Your task to perform on an android device: Open settings on Google Maps Image 0: 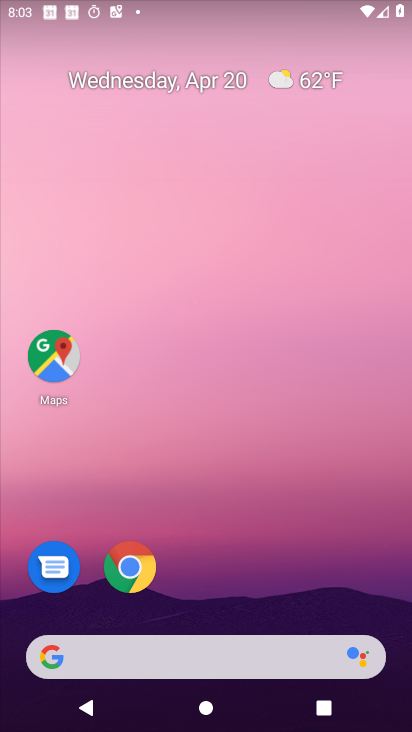
Step 0: click (231, 292)
Your task to perform on an android device: Open settings on Google Maps Image 1: 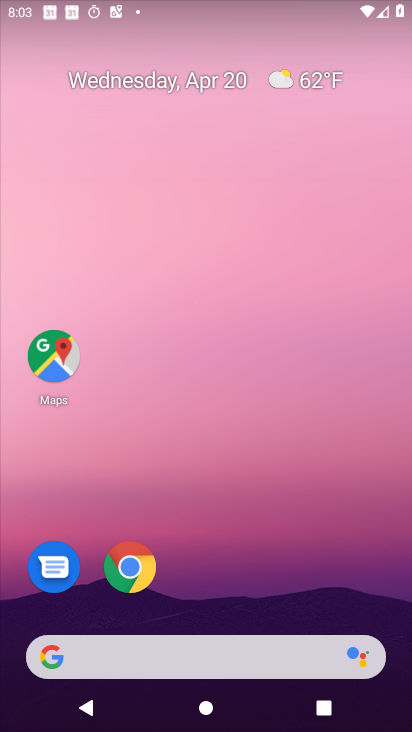
Step 1: click (59, 363)
Your task to perform on an android device: Open settings on Google Maps Image 2: 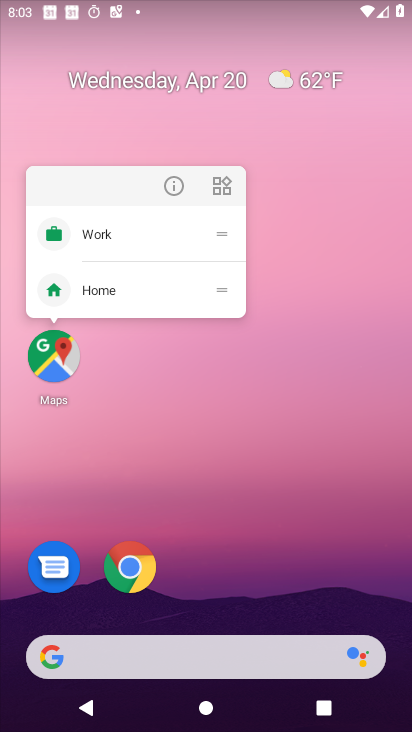
Step 2: click (59, 363)
Your task to perform on an android device: Open settings on Google Maps Image 3: 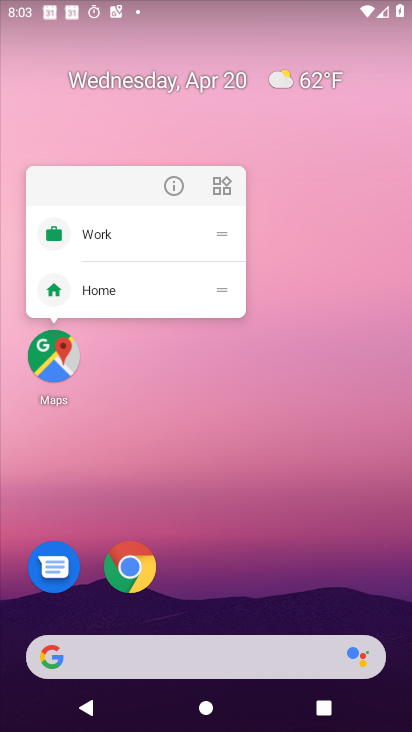
Step 3: click (59, 363)
Your task to perform on an android device: Open settings on Google Maps Image 4: 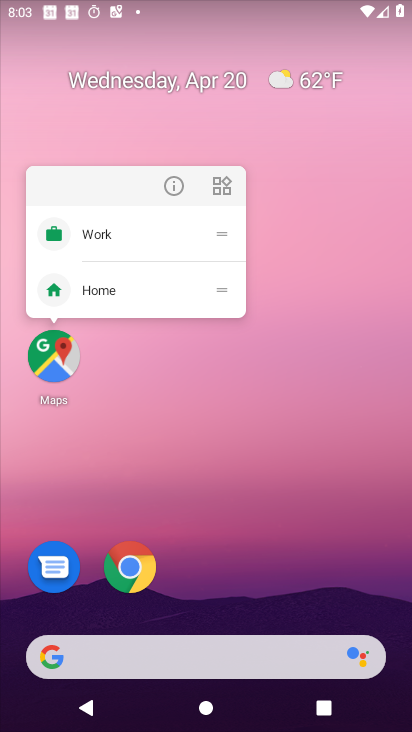
Step 4: click (59, 363)
Your task to perform on an android device: Open settings on Google Maps Image 5: 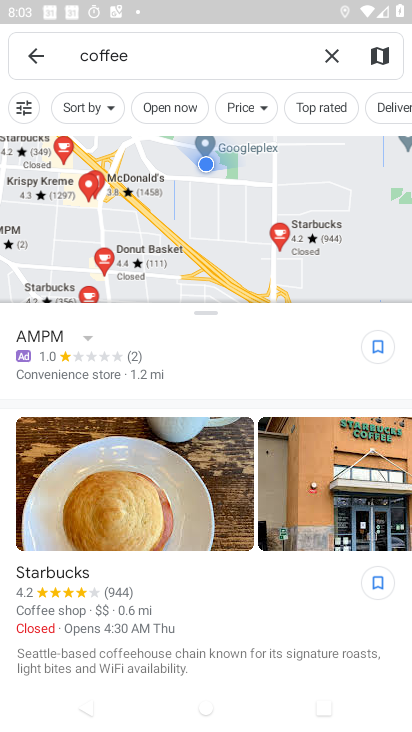
Step 5: click (39, 55)
Your task to perform on an android device: Open settings on Google Maps Image 6: 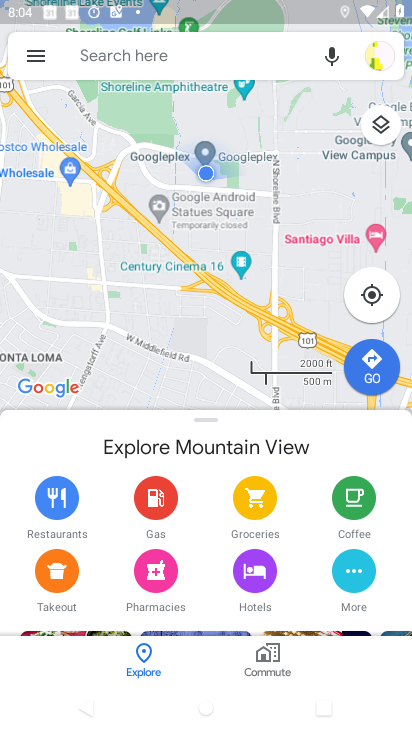
Step 6: click (39, 55)
Your task to perform on an android device: Open settings on Google Maps Image 7: 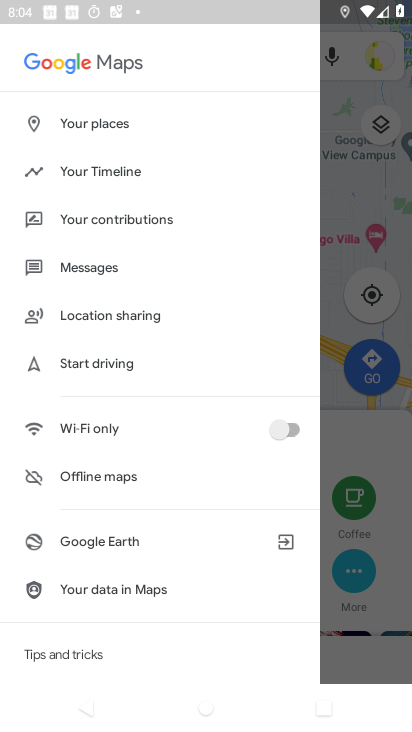
Step 7: drag from (88, 578) to (149, 190)
Your task to perform on an android device: Open settings on Google Maps Image 8: 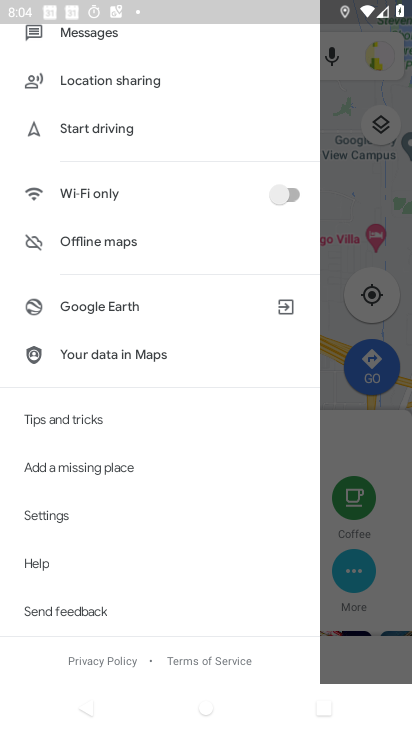
Step 8: click (51, 514)
Your task to perform on an android device: Open settings on Google Maps Image 9: 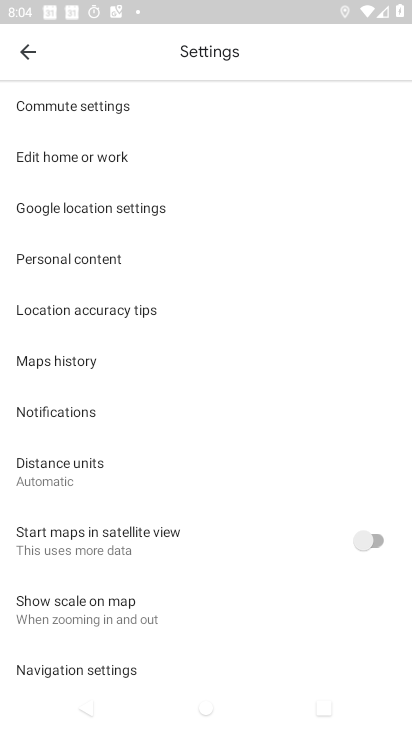
Step 9: task complete